Your task to perform on an android device: Add jbl flip 4 to the cart on costco.com Image 0: 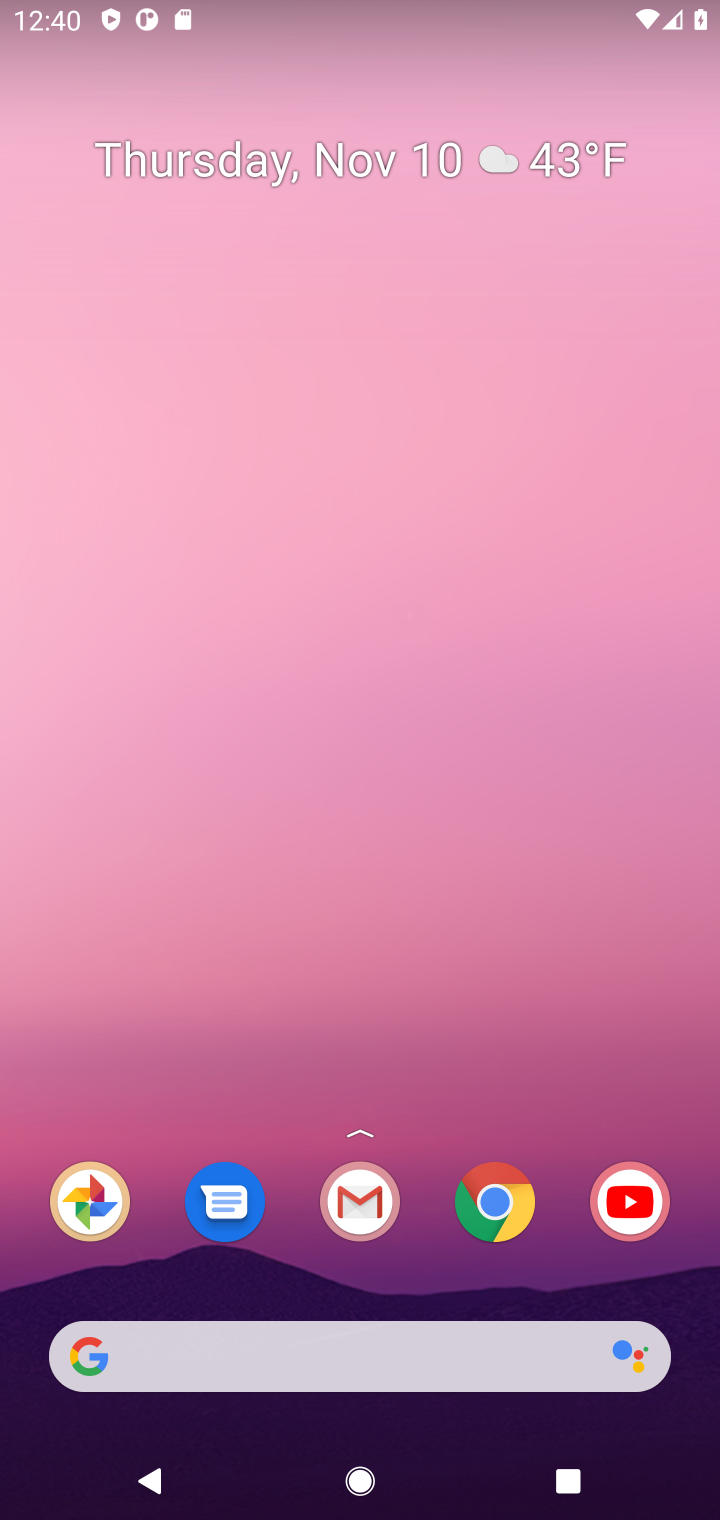
Step 0: click (516, 1197)
Your task to perform on an android device: Add jbl flip 4 to the cart on costco.com Image 1: 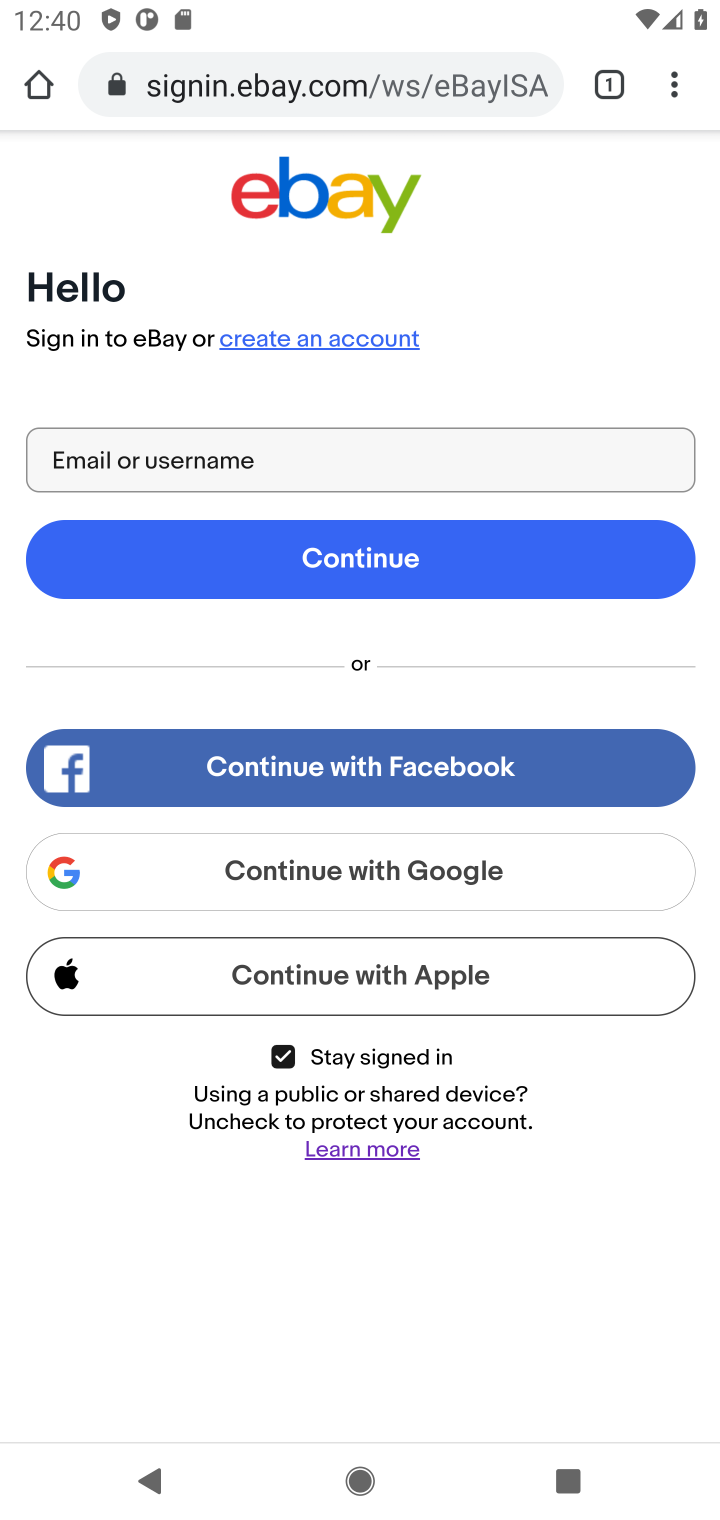
Step 1: click (310, 78)
Your task to perform on an android device: Add jbl flip 4 to the cart on costco.com Image 2: 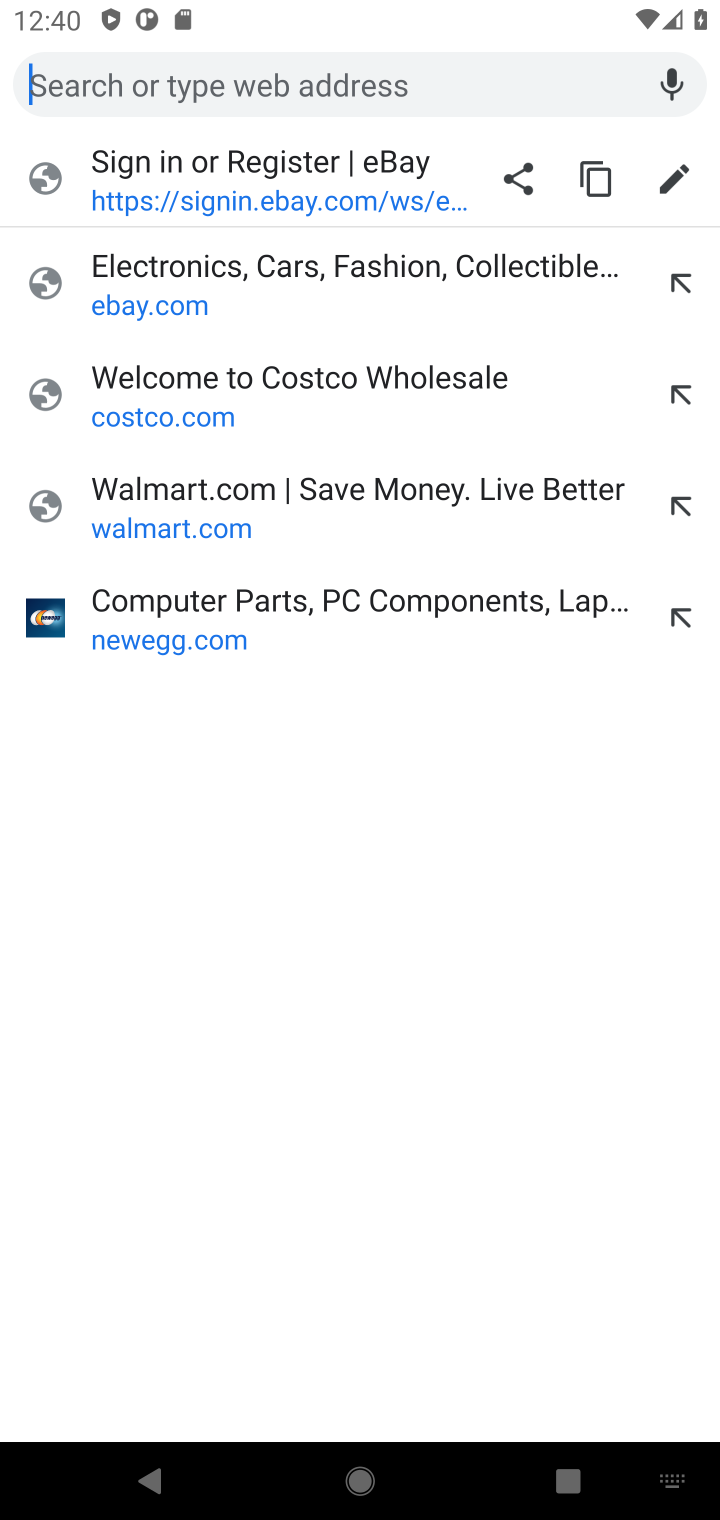
Step 2: click (372, 380)
Your task to perform on an android device: Add jbl flip 4 to the cart on costco.com Image 3: 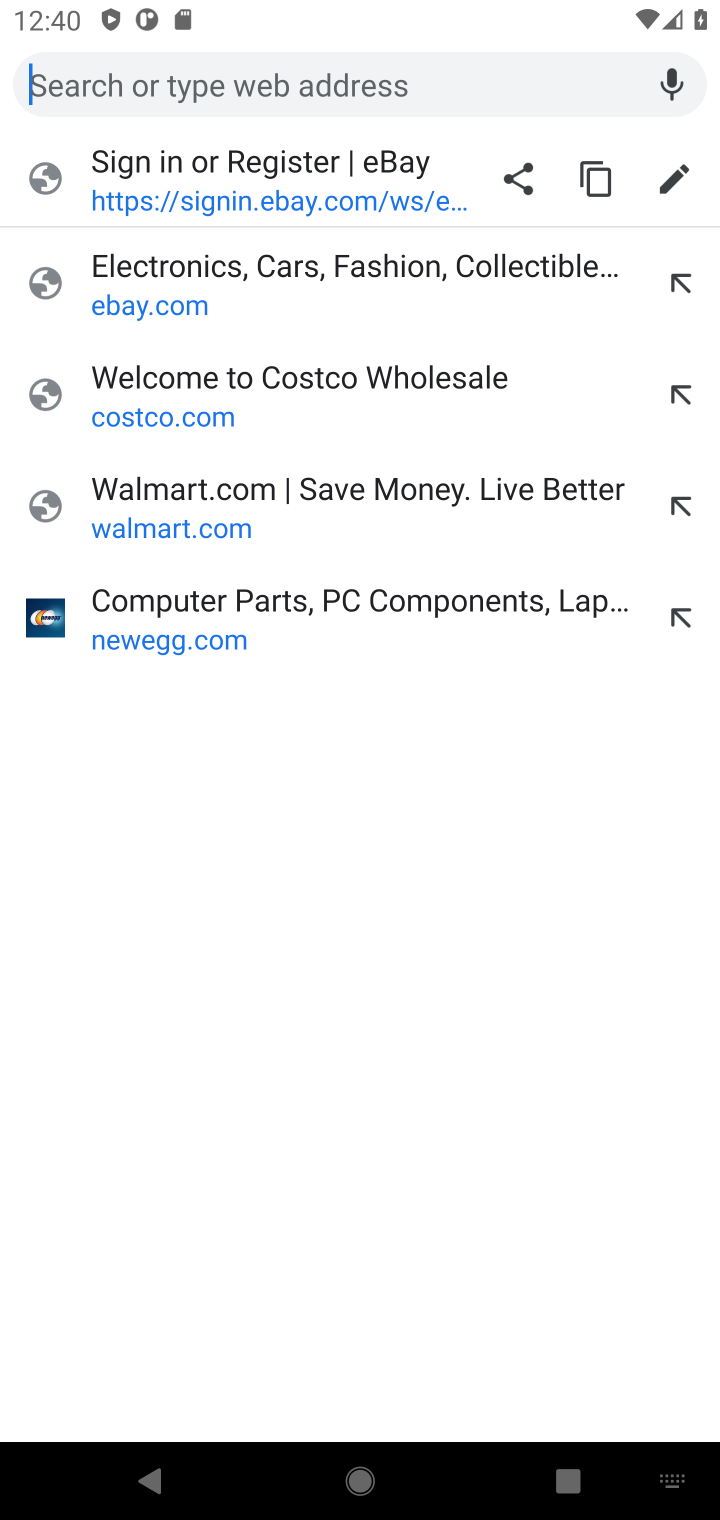
Step 3: click (328, 380)
Your task to perform on an android device: Add jbl flip 4 to the cart on costco.com Image 4: 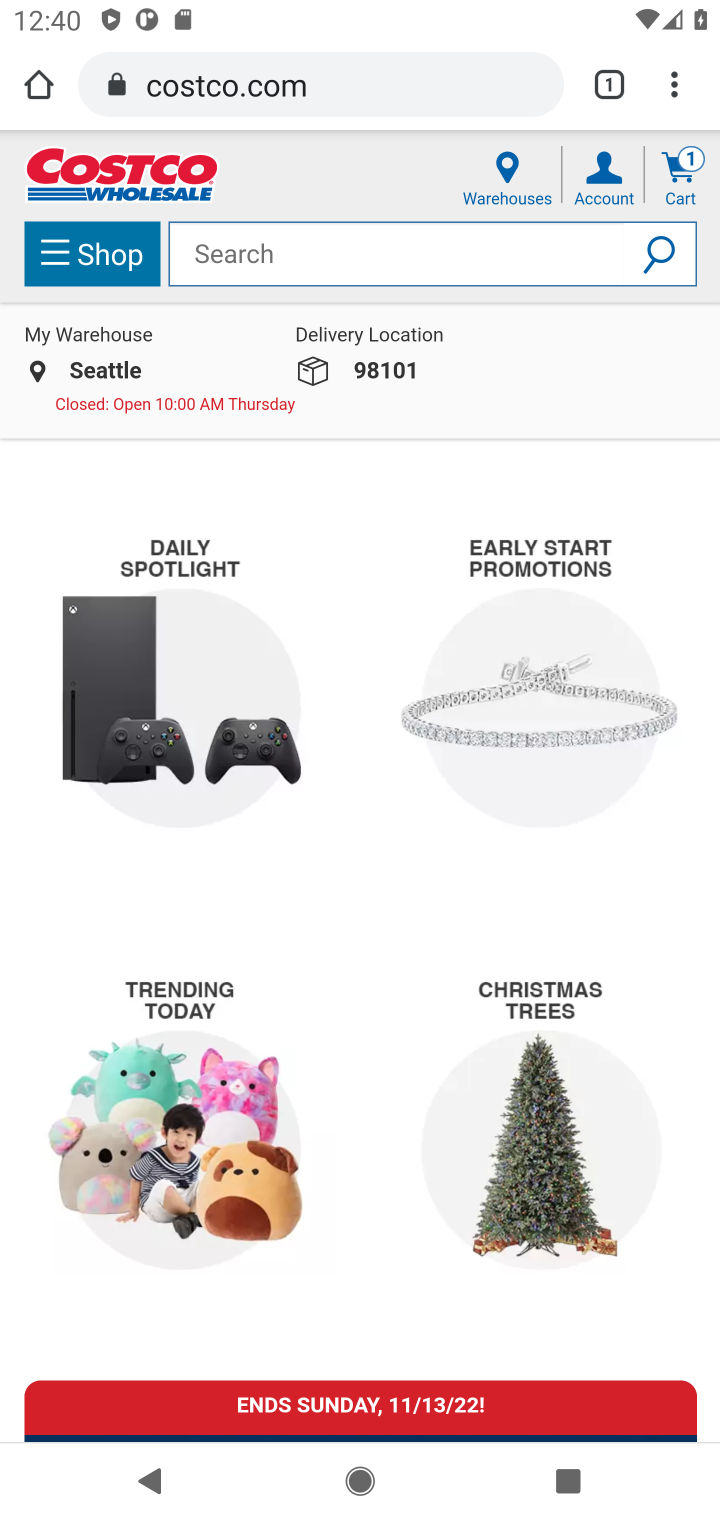
Step 4: click (483, 250)
Your task to perform on an android device: Add jbl flip 4 to the cart on costco.com Image 5: 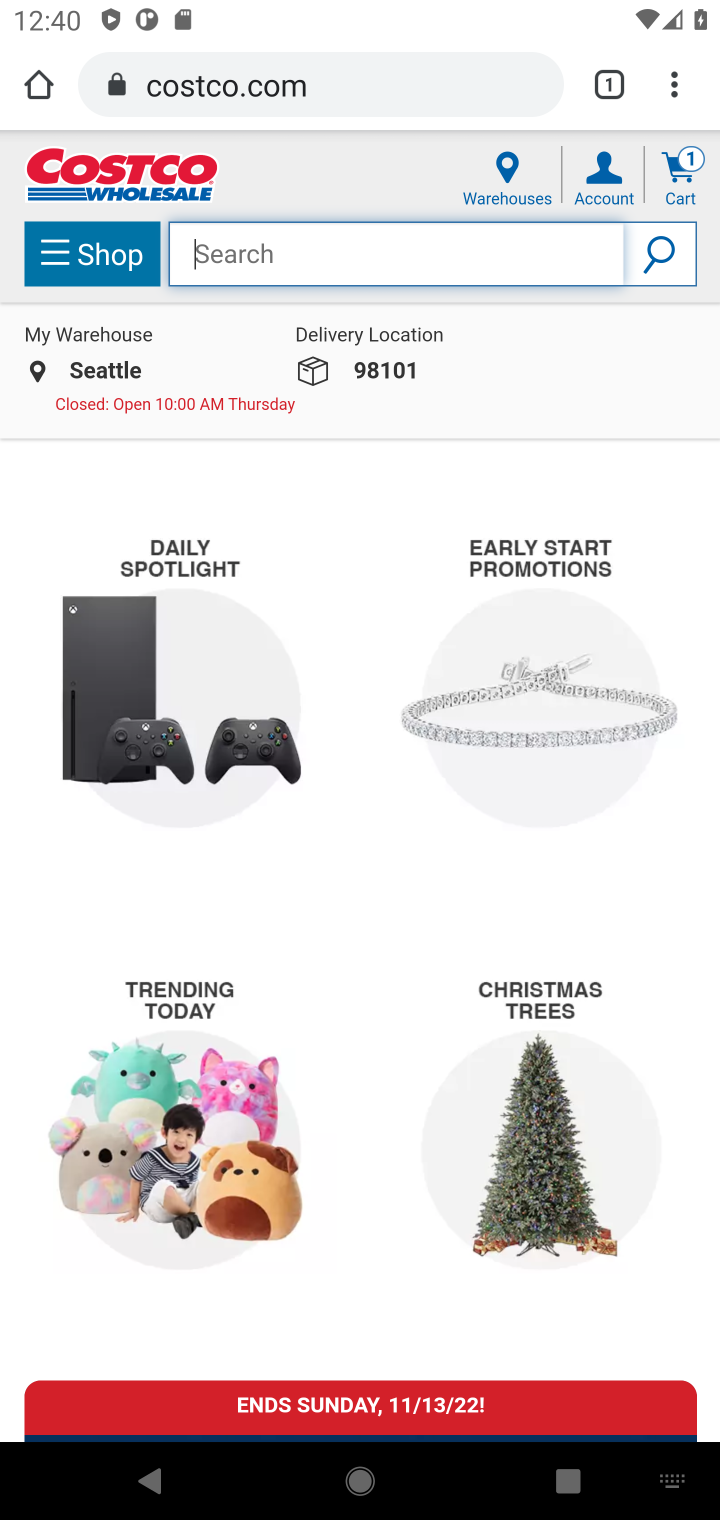
Step 5: type " jbl flip 4"
Your task to perform on an android device: Add jbl flip 4 to the cart on costco.com Image 6: 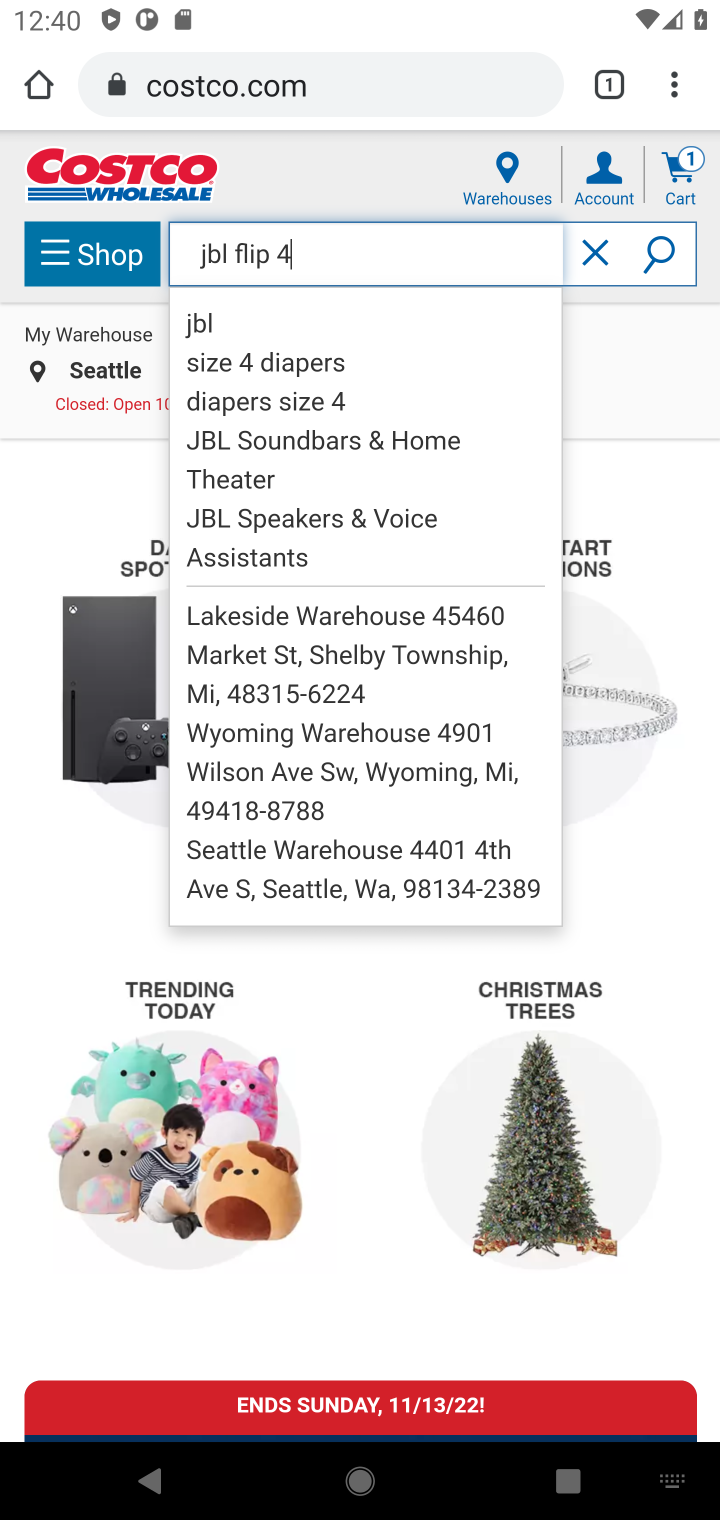
Step 6: click (656, 339)
Your task to perform on an android device: Add jbl flip 4 to the cart on costco.com Image 7: 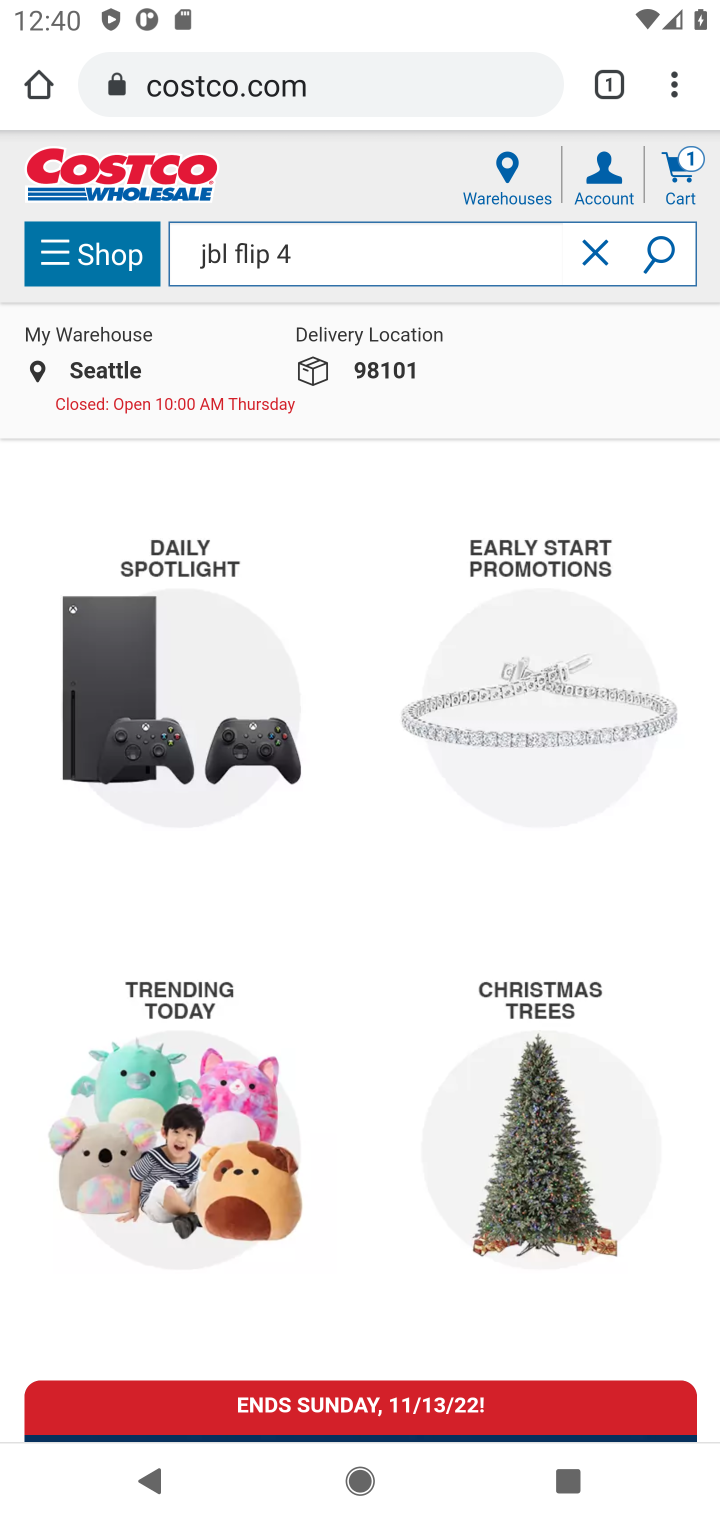
Step 7: task complete